Your task to perform on an android device: turn on data saver in the chrome app Image 0: 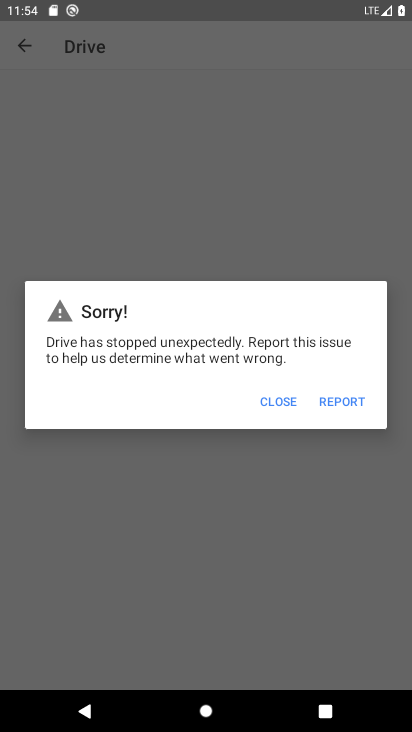
Step 0: press home button
Your task to perform on an android device: turn on data saver in the chrome app Image 1: 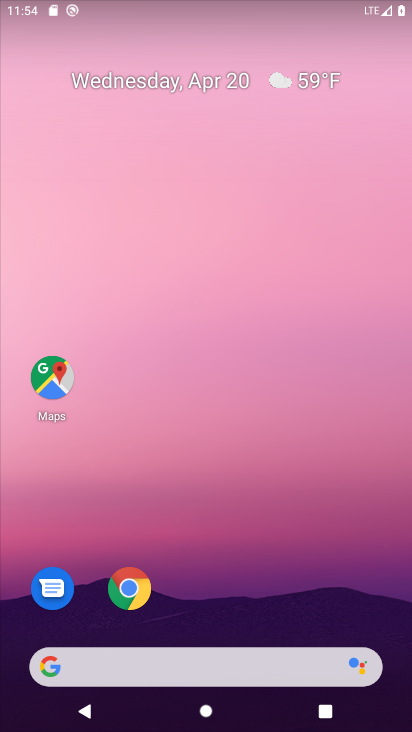
Step 1: click (133, 590)
Your task to perform on an android device: turn on data saver in the chrome app Image 2: 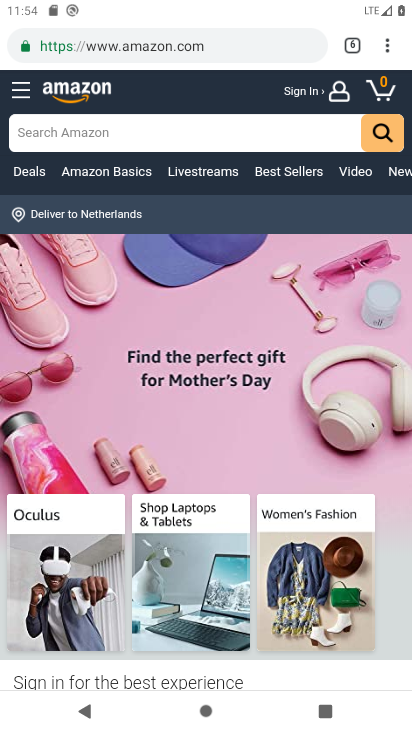
Step 2: click (382, 50)
Your task to perform on an android device: turn on data saver in the chrome app Image 3: 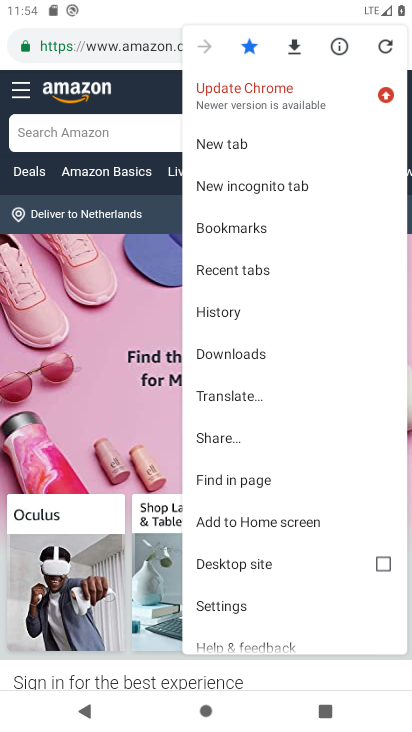
Step 3: click (230, 602)
Your task to perform on an android device: turn on data saver in the chrome app Image 4: 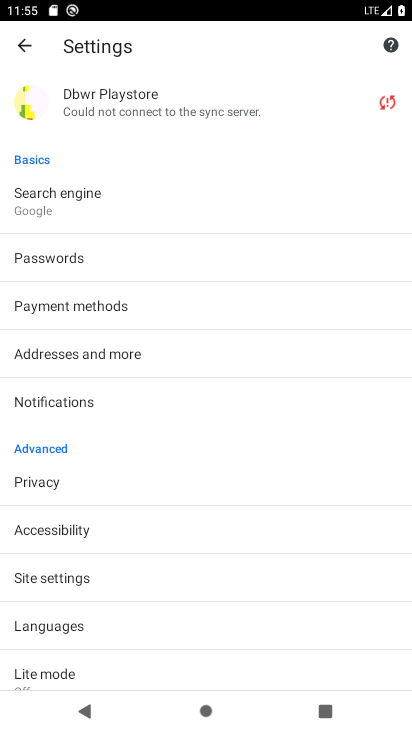
Step 4: click (58, 669)
Your task to perform on an android device: turn on data saver in the chrome app Image 5: 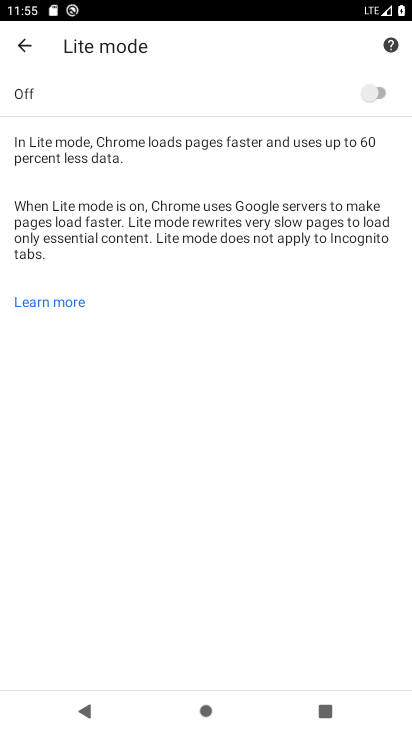
Step 5: click (368, 92)
Your task to perform on an android device: turn on data saver in the chrome app Image 6: 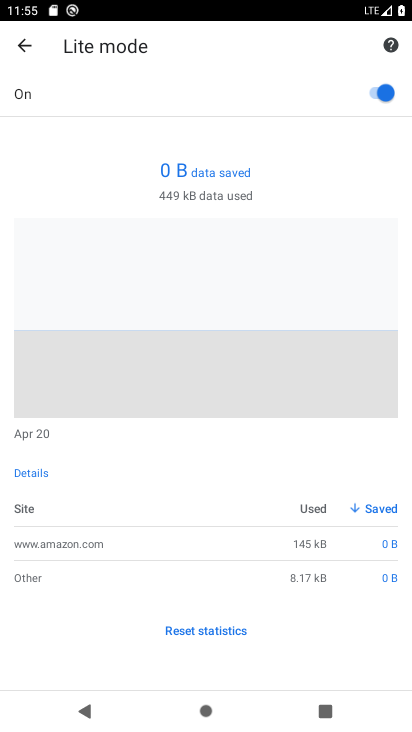
Step 6: task complete